Your task to perform on an android device: change the upload size in google photos Image 0: 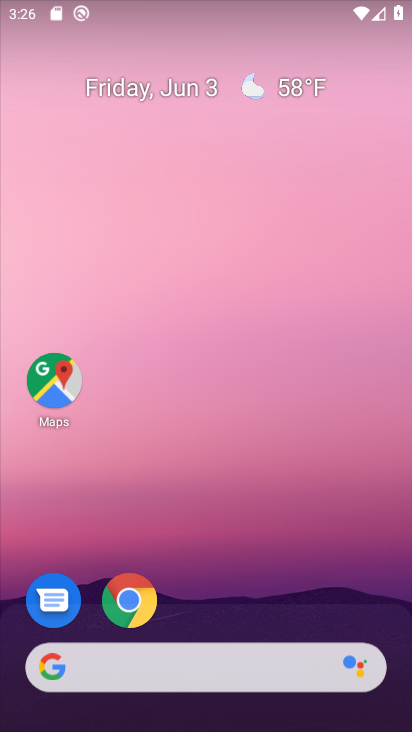
Step 0: drag from (46, 529) to (269, 149)
Your task to perform on an android device: change the upload size in google photos Image 1: 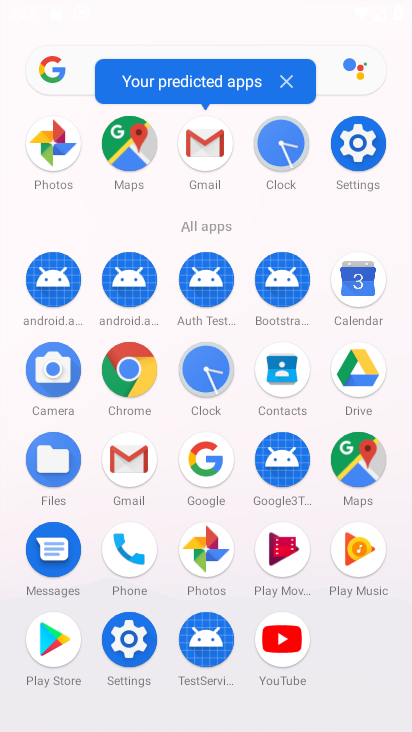
Step 1: click (211, 569)
Your task to perform on an android device: change the upload size in google photos Image 2: 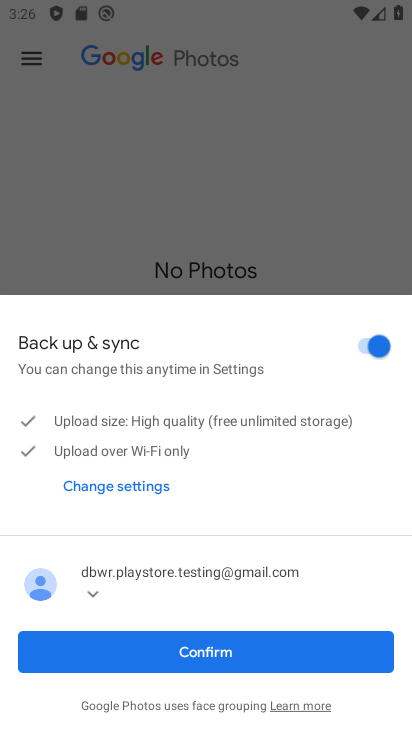
Step 2: click (238, 645)
Your task to perform on an android device: change the upload size in google photos Image 3: 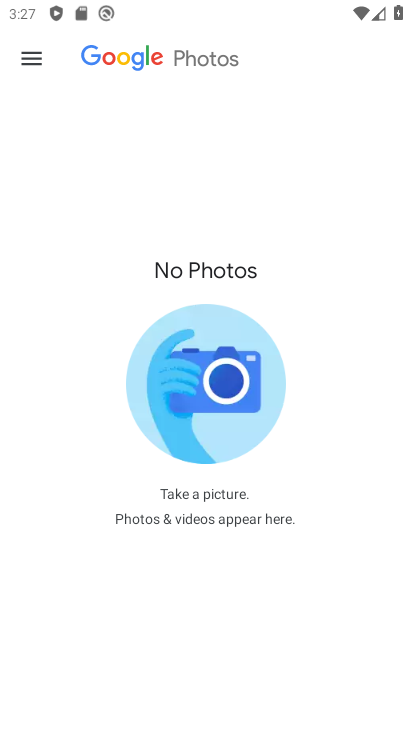
Step 3: click (19, 58)
Your task to perform on an android device: change the upload size in google photos Image 4: 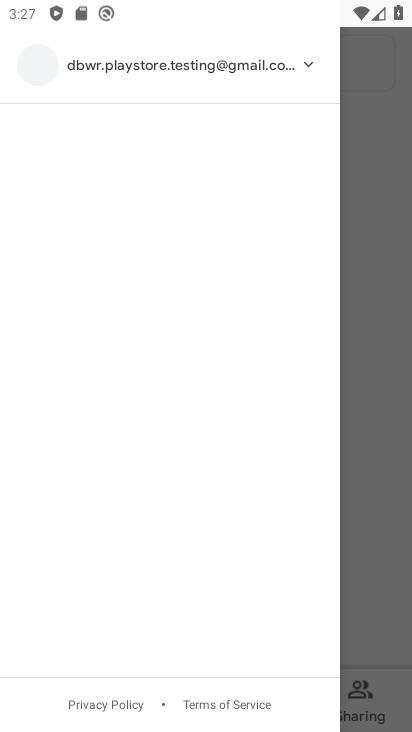
Step 4: click (53, 68)
Your task to perform on an android device: change the upload size in google photos Image 5: 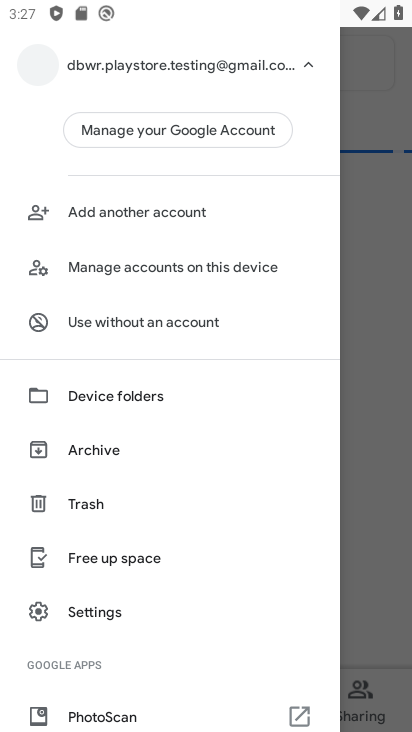
Step 5: click (64, 617)
Your task to perform on an android device: change the upload size in google photos Image 6: 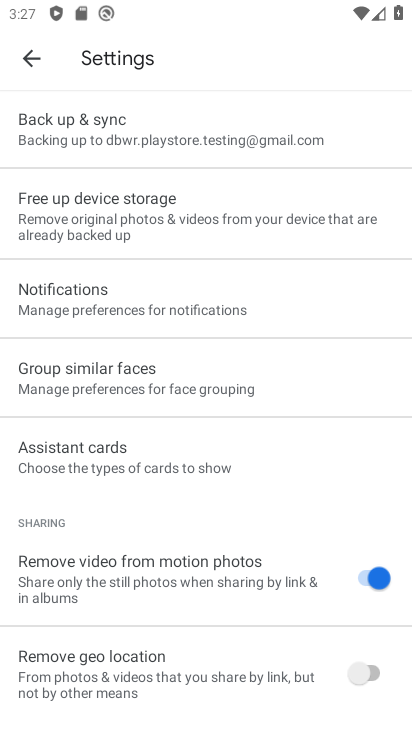
Step 6: click (120, 138)
Your task to perform on an android device: change the upload size in google photos Image 7: 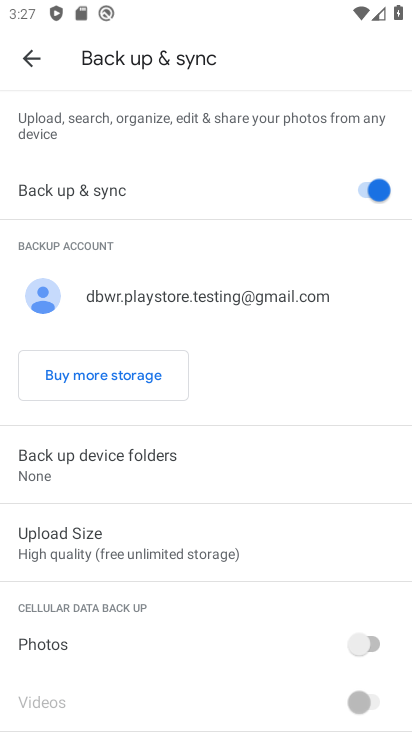
Step 7: click (106, 549)
Your task to perform on an android device: change the upload size in google photos Image 8: 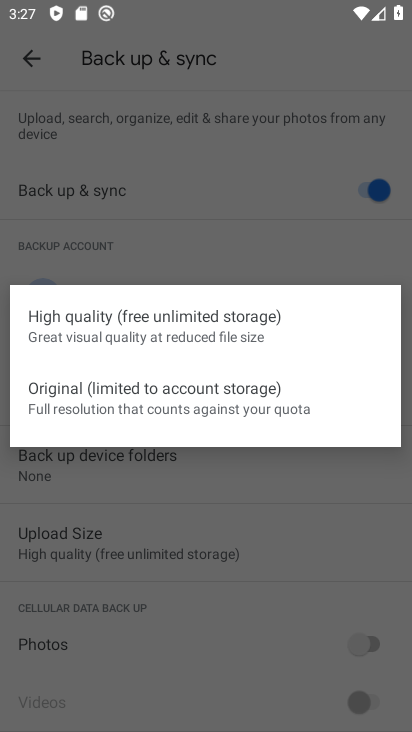
Step 8: click (115, 405)
Your task to perform on an android device: change the upload size in google photos Image 9: 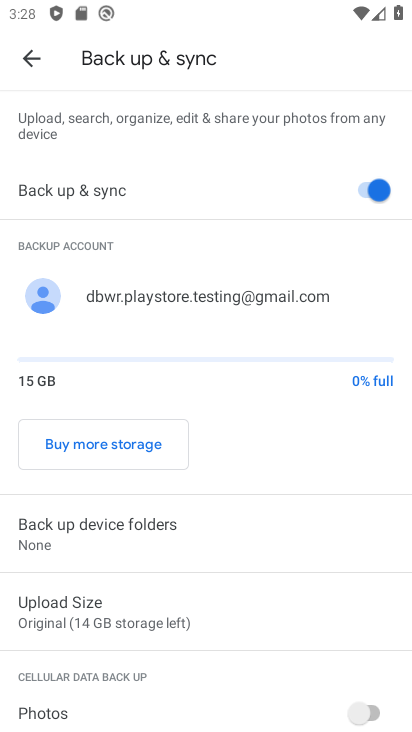
Step 9: task complete